Your task to perform on an android device: delete a single message in the gmail app Image 0: 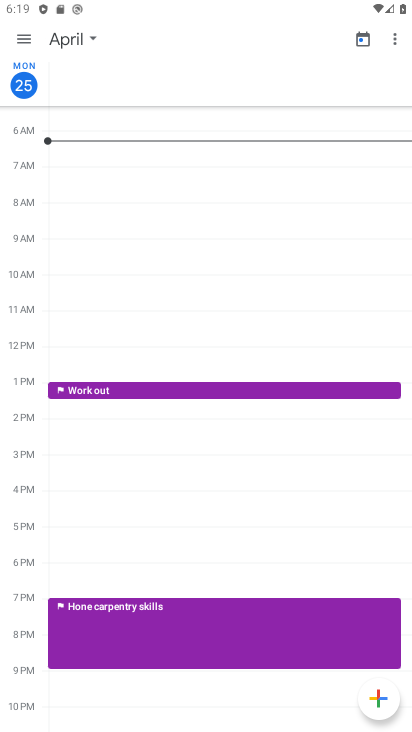
Step 0: press home button
Your task to perform on an android device: delete a single message in the gmail app Image 1: 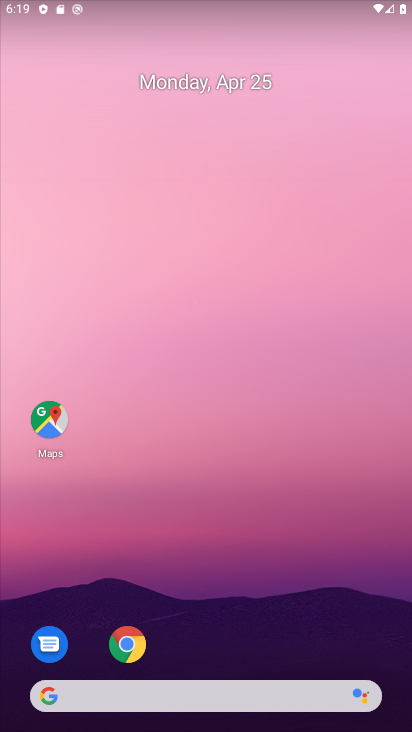
Step 1: drag from (293, 626) to (319, 138)
Your task to perform on an android device: delete a single message in the gmail app Image 2: 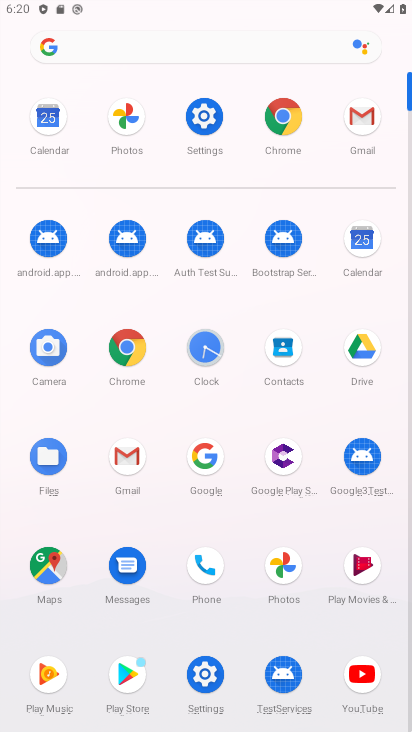
Step 2: click (129, 464)
Your task to perform on an android device: delete a single message in the gmail app Image 3: 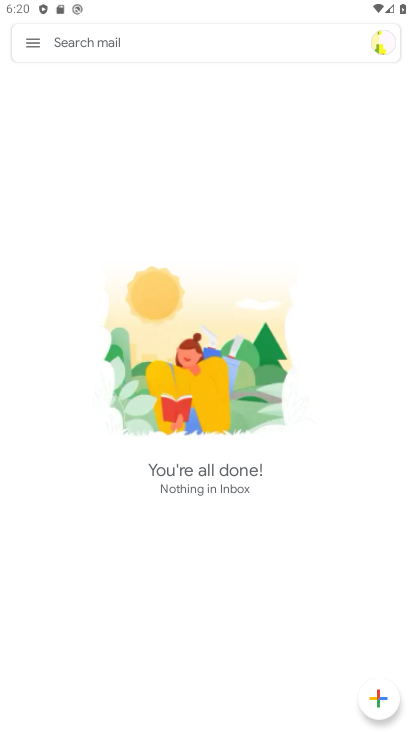
Step 3: click (34, 43)
Your task to perform on an android device: delete a single message in the gmail app Image 4: 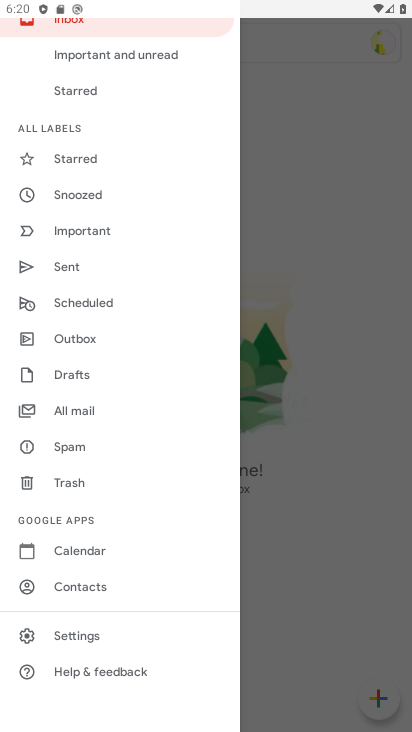
Step 4: click (87, 414)
Your task to perform on an android device: delete a single message in the gmail app Image 5: 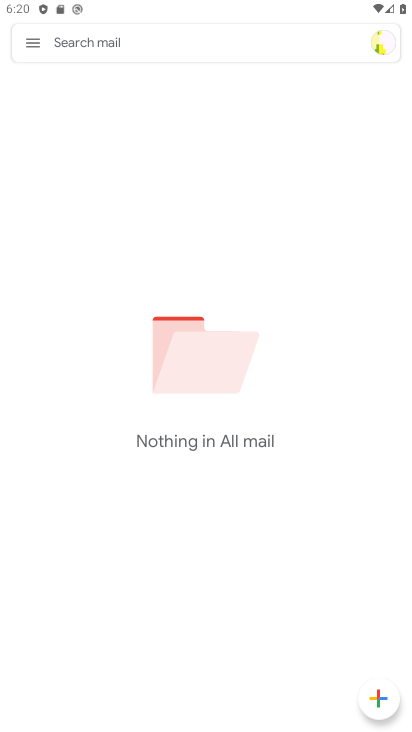
Step 5: task complete